Your task to perform on an android device: Go to display settings Image 0: 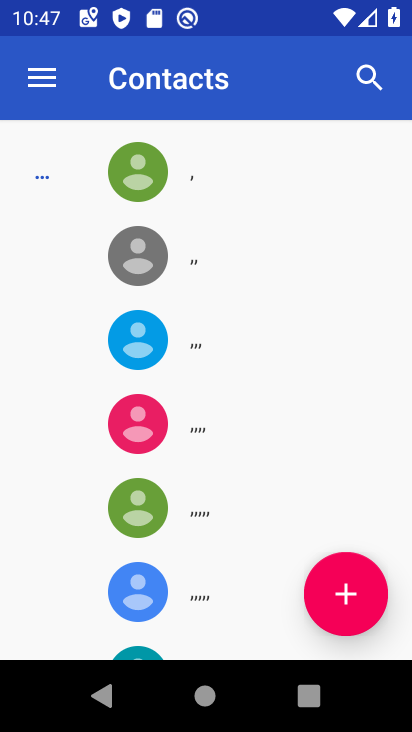
Step 0: press home button
Your task to perform on an android device: Go to display settings Image 1: 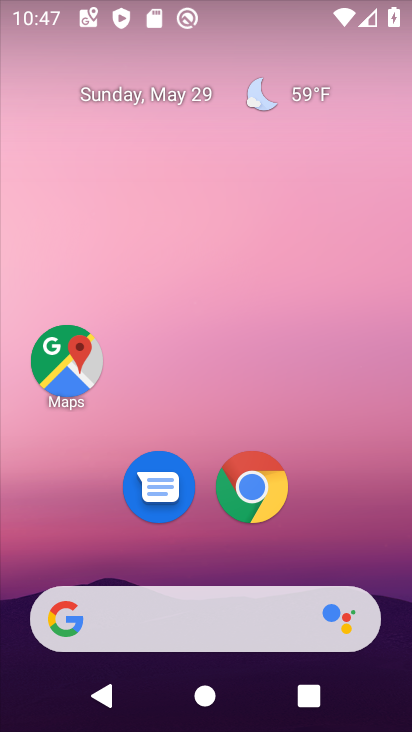
Step 1: drag from (385, 668) to (336, 154)
Your task to perform on an android device: Go to display settings Image 2: 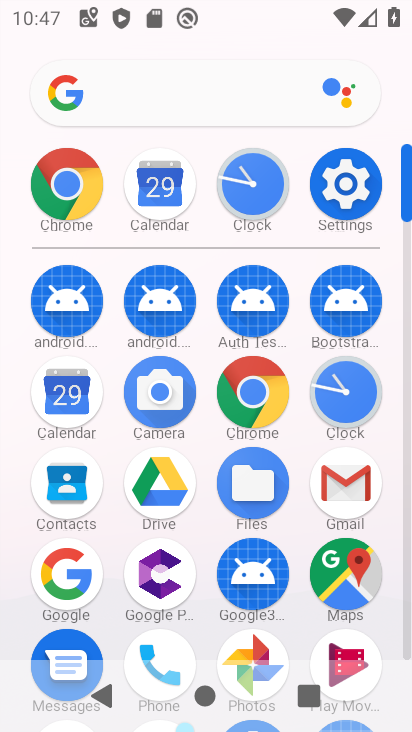
Step 2: click (341, 182)
Your task to perform on an android device: Go to display settings Image 3: 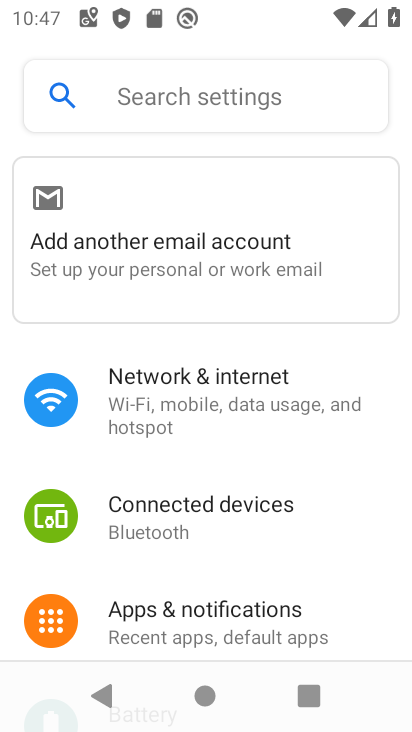
Step 3: drag from (342, 631) to (316, 195)
Your task to perform on an android device: Go to display settings Image 4: 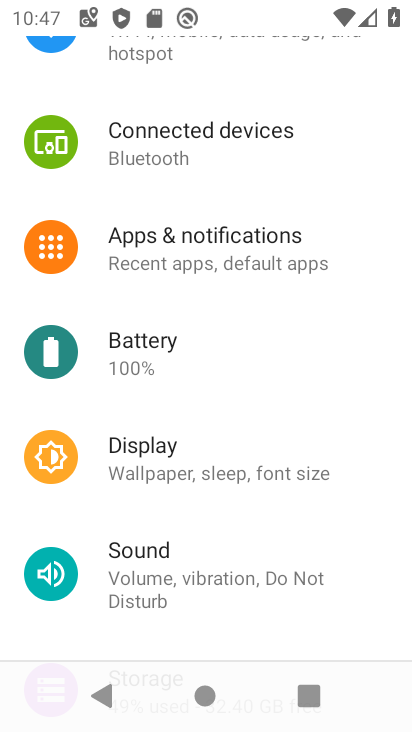
Step 4: click (142, 450)
Your task to perform on an android device: Go to display settings Image 5: 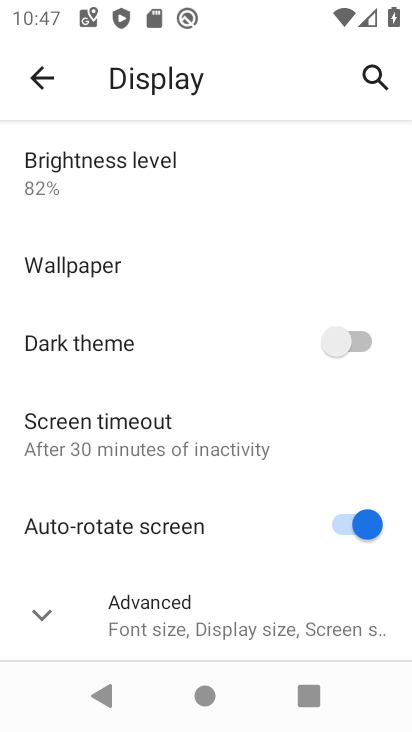
Step 5: drag from (246, 583) to (247, 264)
Your task to perform on an android device: Go to display settings Image 6: 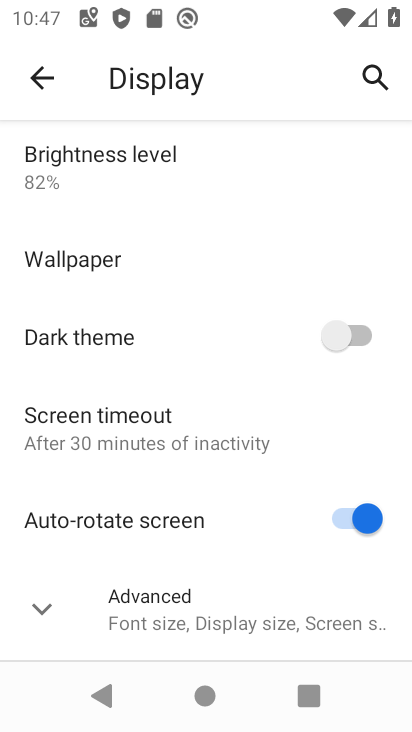
Step 6: click (33, 605)
Your task to perform on an android device: Go to display settings Image 7: 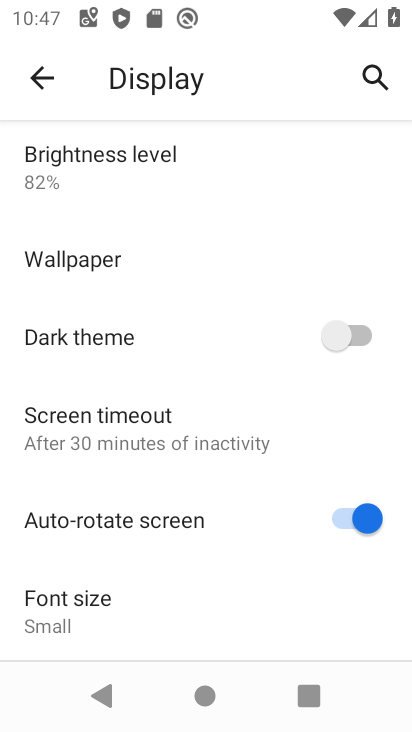
Step 7: task complete